Your task to perform on an android device: toggle airplane mode Image 0: 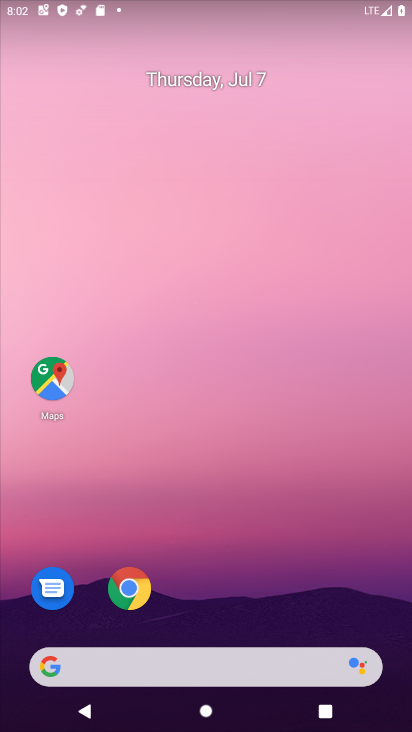
Step 0: drag from (275, 605) to (287, 163)
Your task to perform on an android device: toggle airplane mode Image 1: 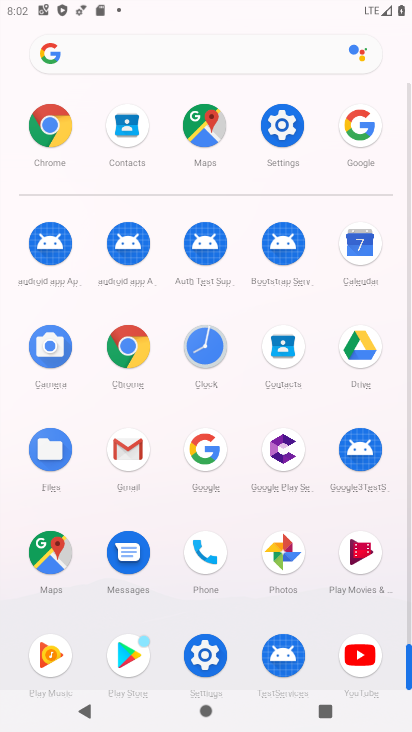
Step 1: click (280, 128)
Your task to perform on an android device: toggle airplane mode Image 2: 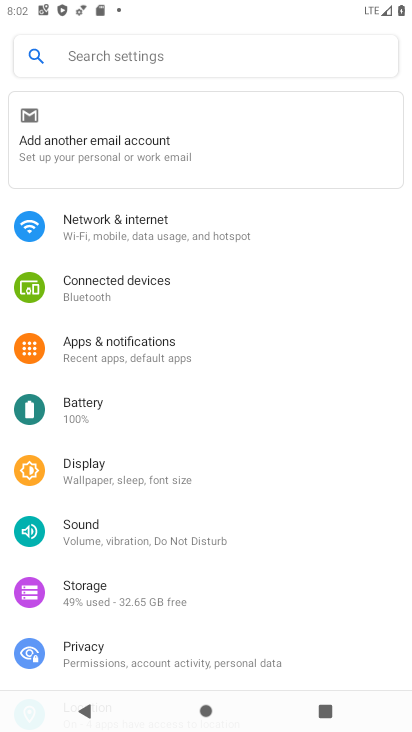
Step 2: click (140, 236)
Your task to perform on an android device: toggle airplane mode Image 3: 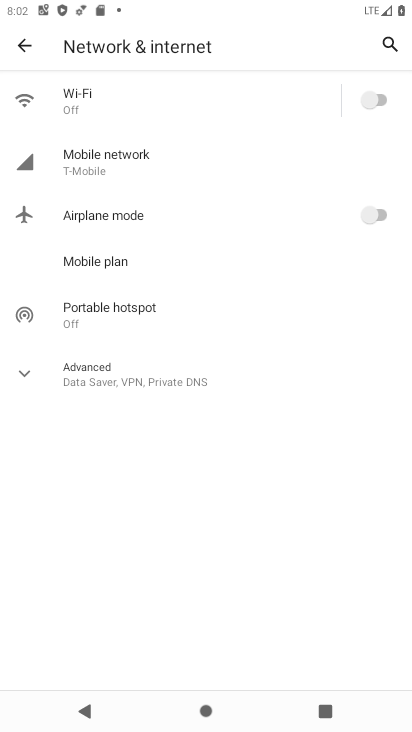
Step 3: click (373, 219)
Your task to perform on an android device: toggle airplane mode Image 4: 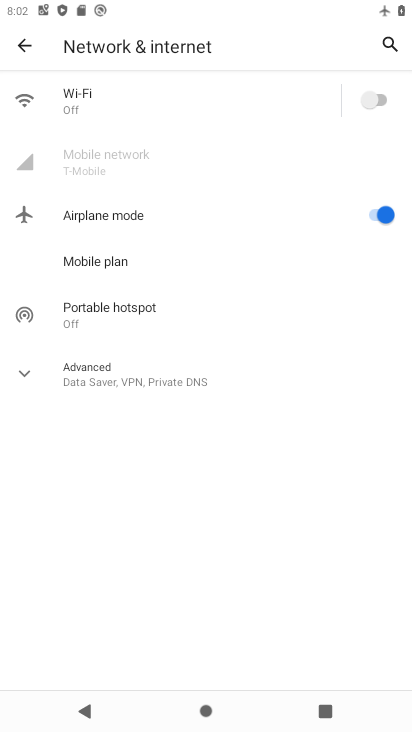
Step 4: task complete